Your task to perform on an android device: Add duracell triple a to the cart on costco.com Image 0: 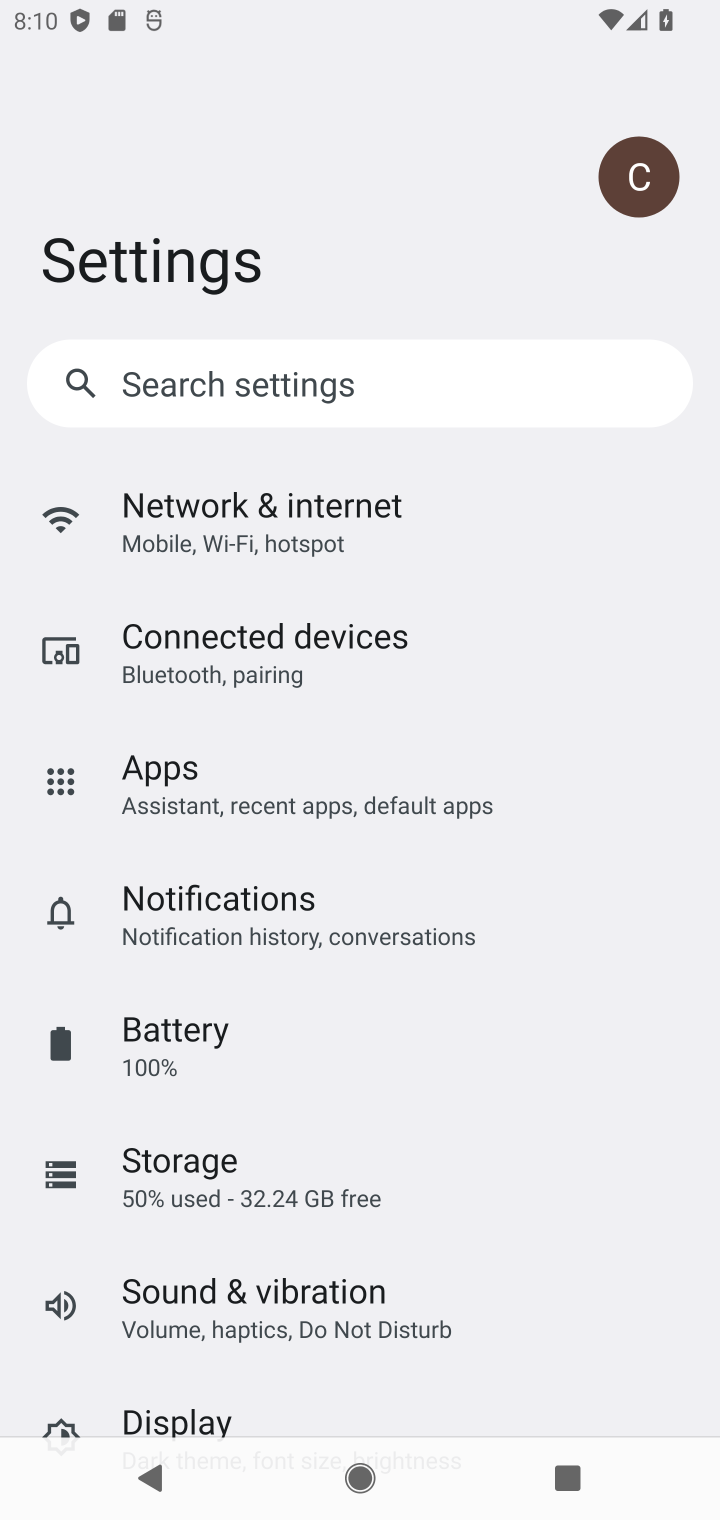
Step 0: press home button
Your task to perform on an android device: Add duracell triple a to the cart on costco.com Image 1: 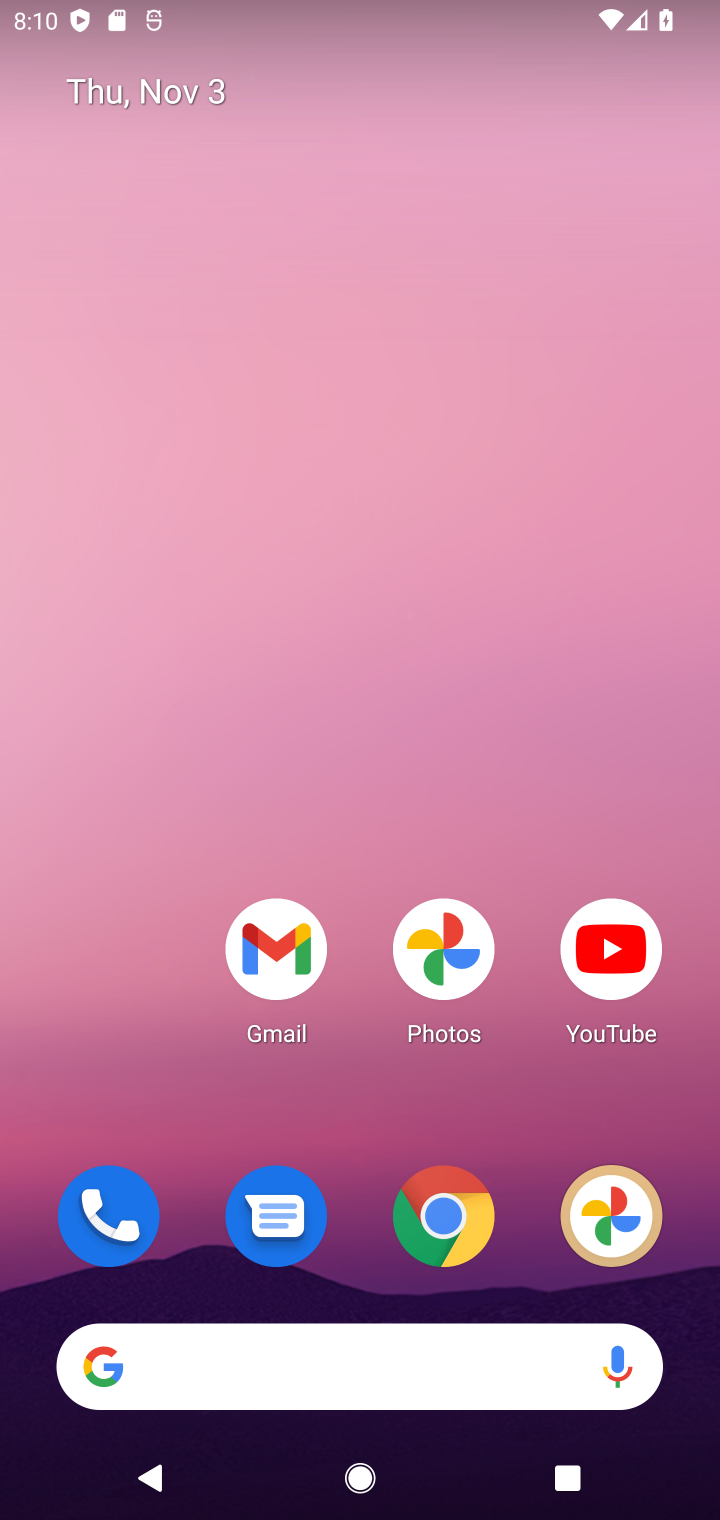
Step 1: click (447, 1251)
Your task to perform on an android device: Add duracell triple a to the cart on costco.com Image 2: 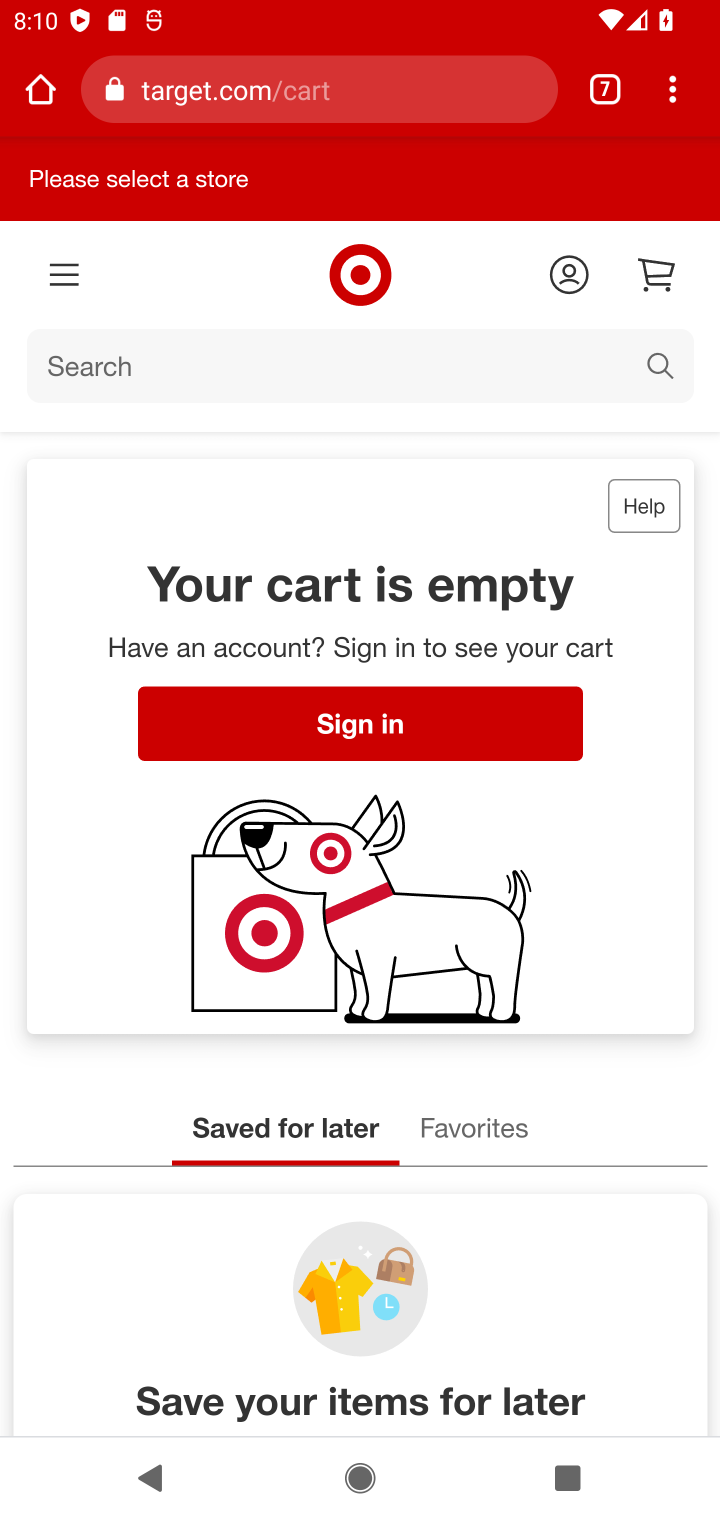
Step 2: click (599, 115)
Your task to perform on an android device: Add duracell triple a to the cart on costco.com Image 3: 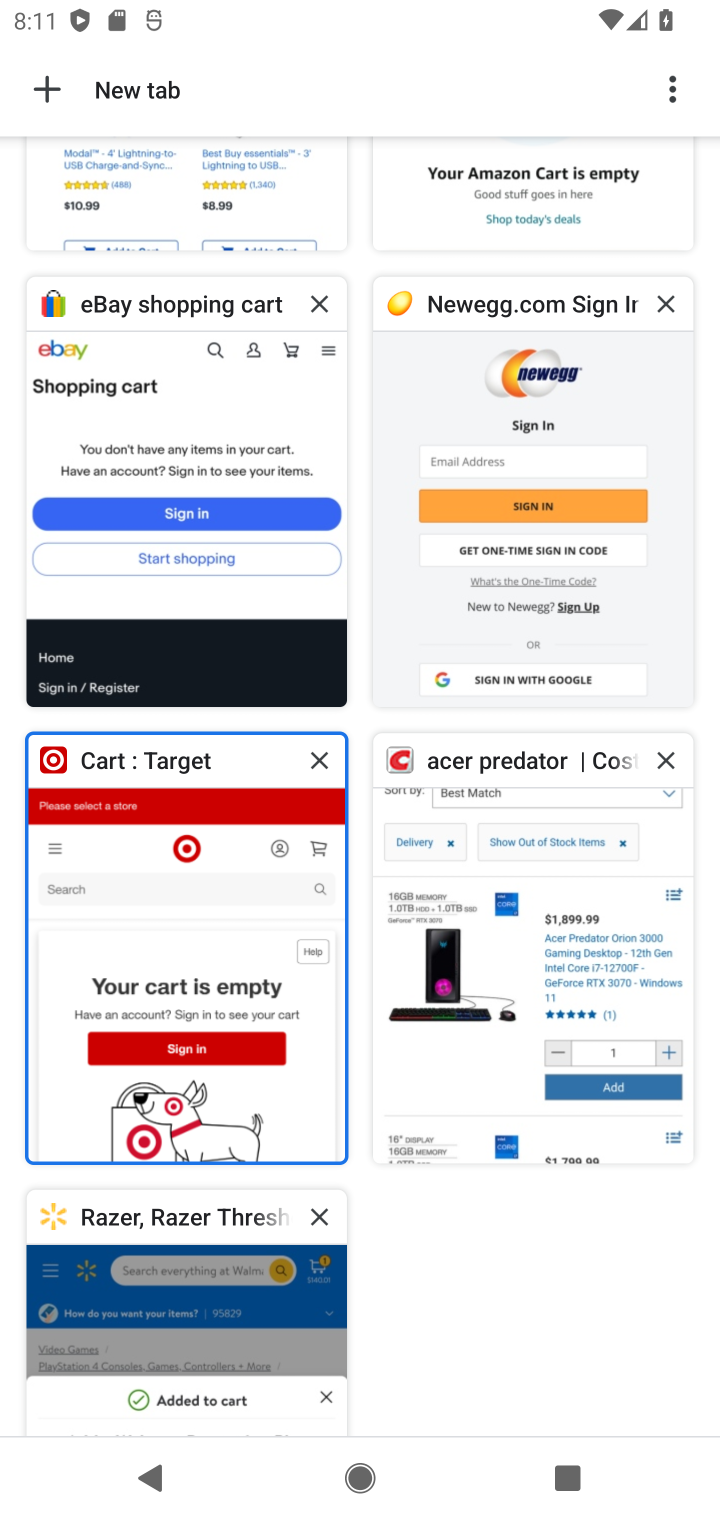
Step 3: drag from (347, 525) to (402, 1106)
Your task to perform on an android device: Add duracell triple a to the cart on costco.com Image 4: 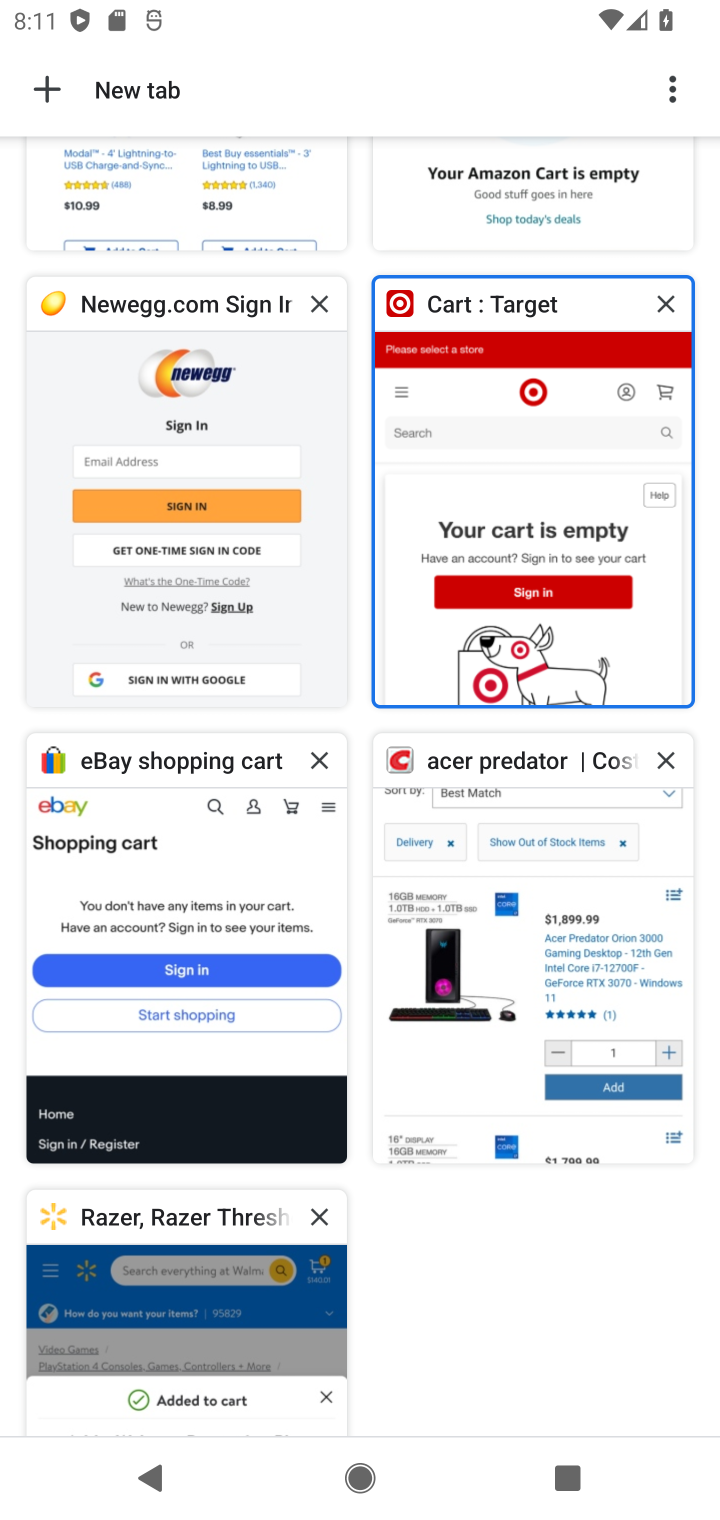
Step 4: drag from (567, 971) to (566, 1419)
Your task to perform on an android device: Add duracell triple a to the cart on costco.com Image 5: 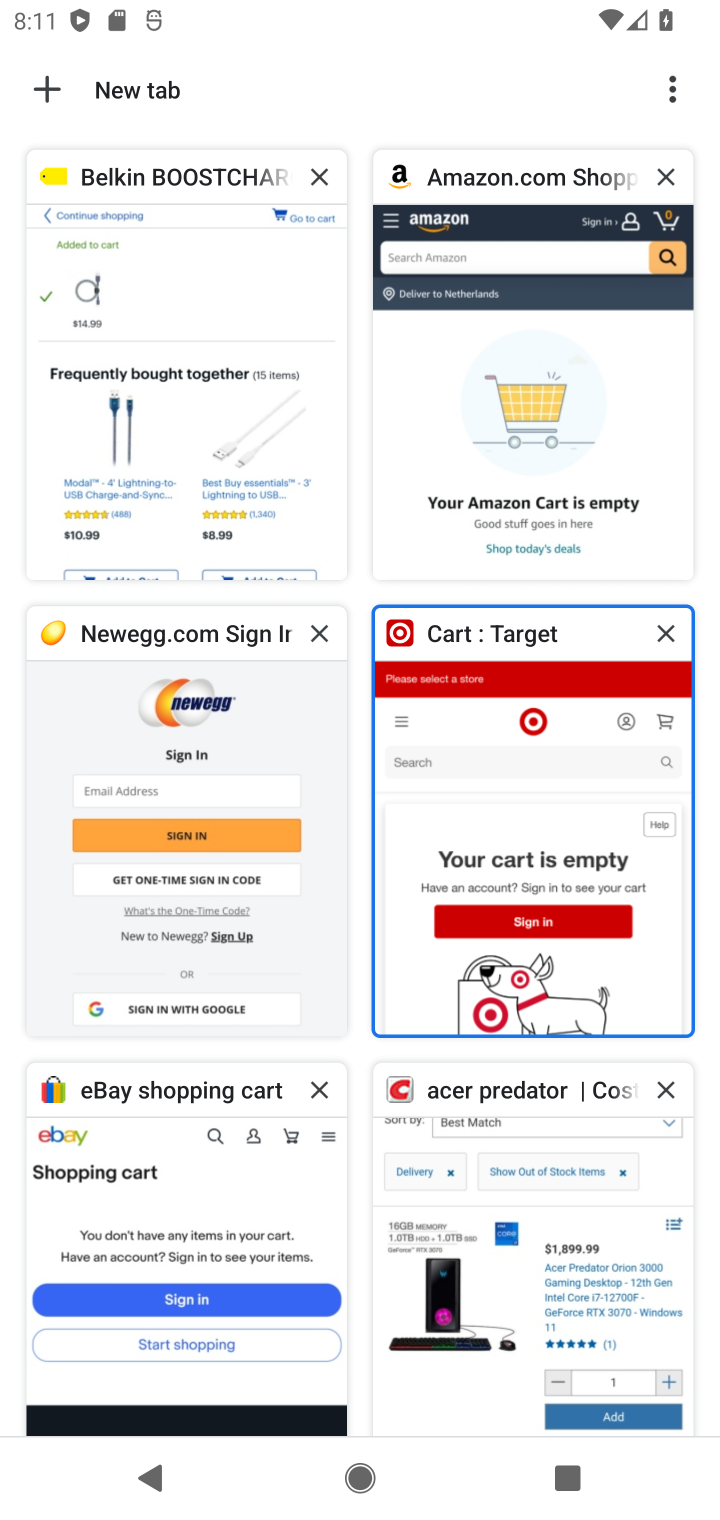
Step 5: click (518, 1189)
Your task to perform on an android device: Add duracell triple a to the cart on costco.com Image 6: 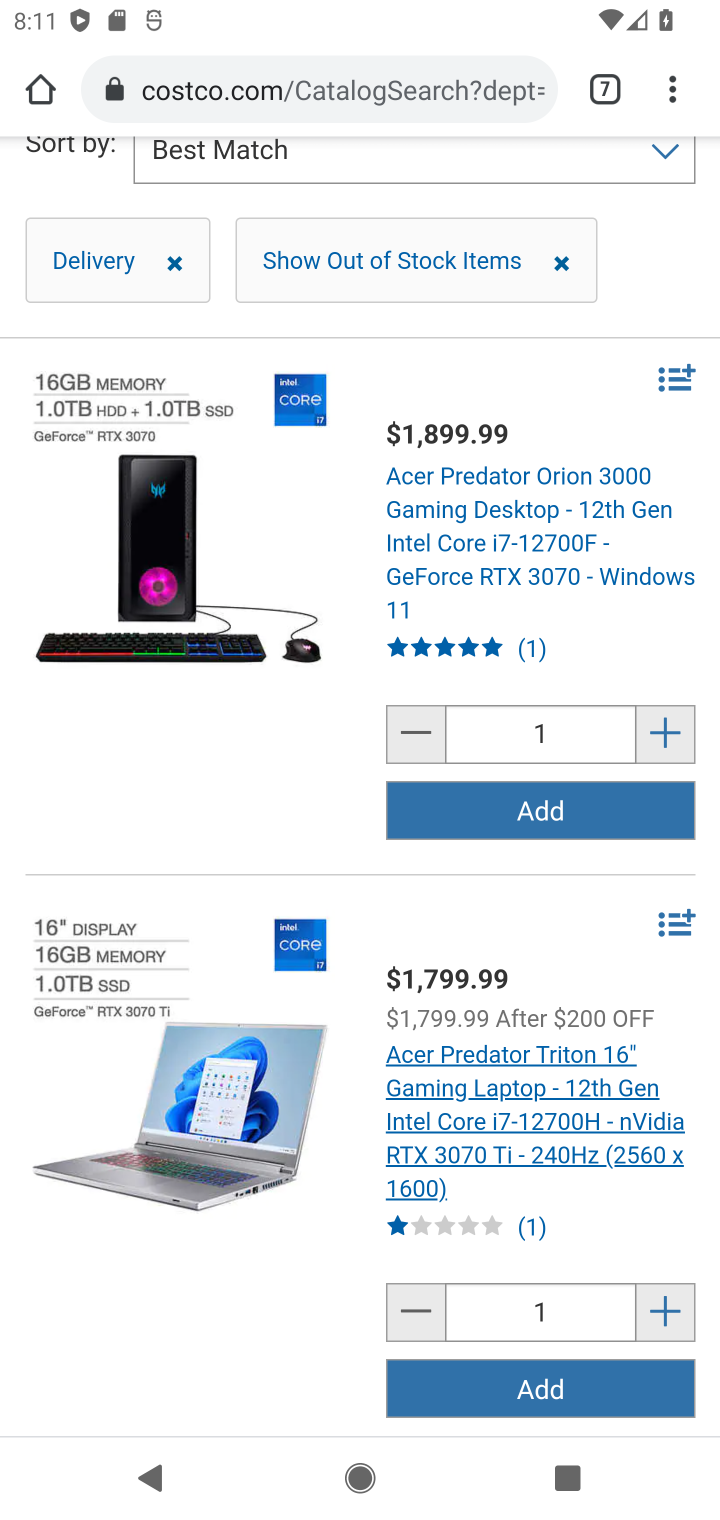
Step 6: drag from (638, 214) to (596, 1075)
Your task to perform on an android device: Add duracell triple a to the cart on costco.com Image 7: 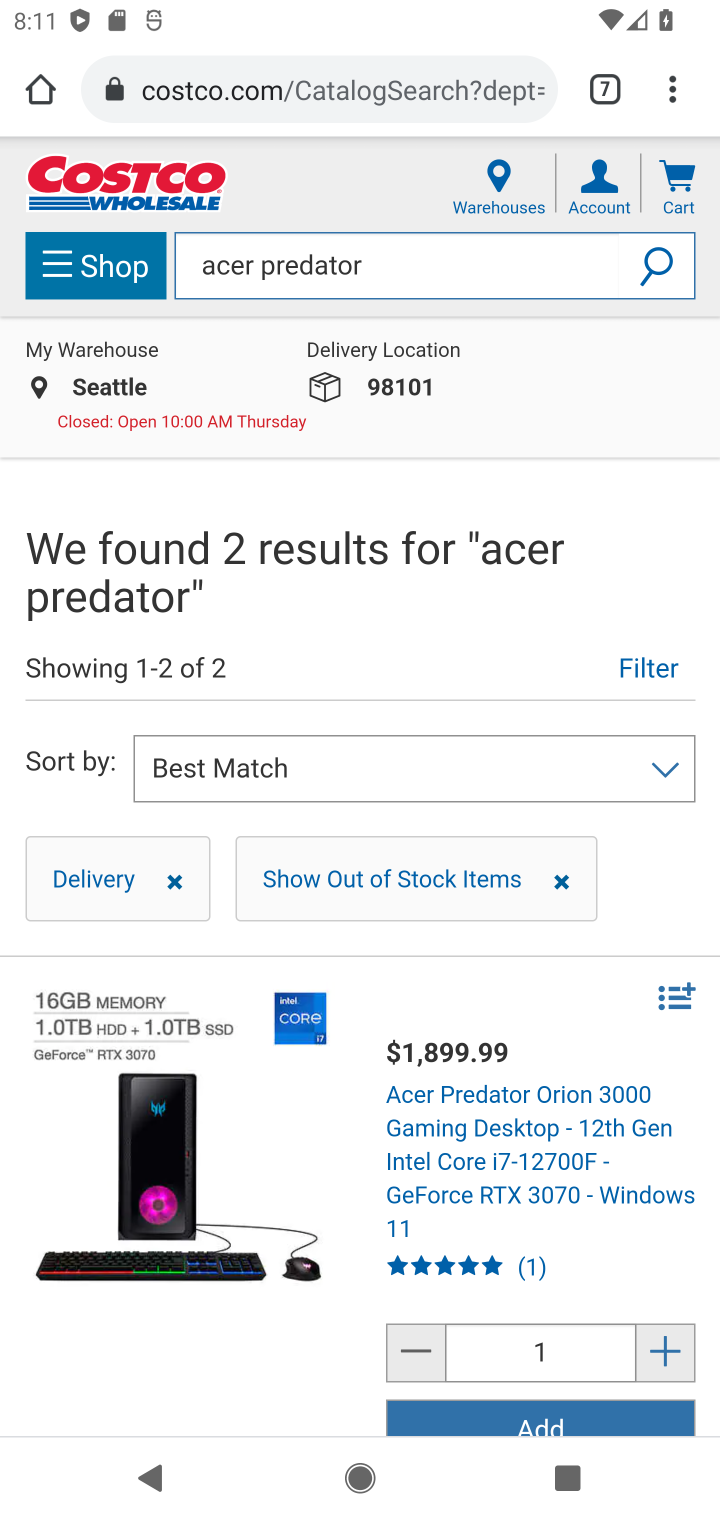
Step 7: click (422, 270)
Your task to perform on an android device: Add duracell triple a to the cart on costco.com Image 8: 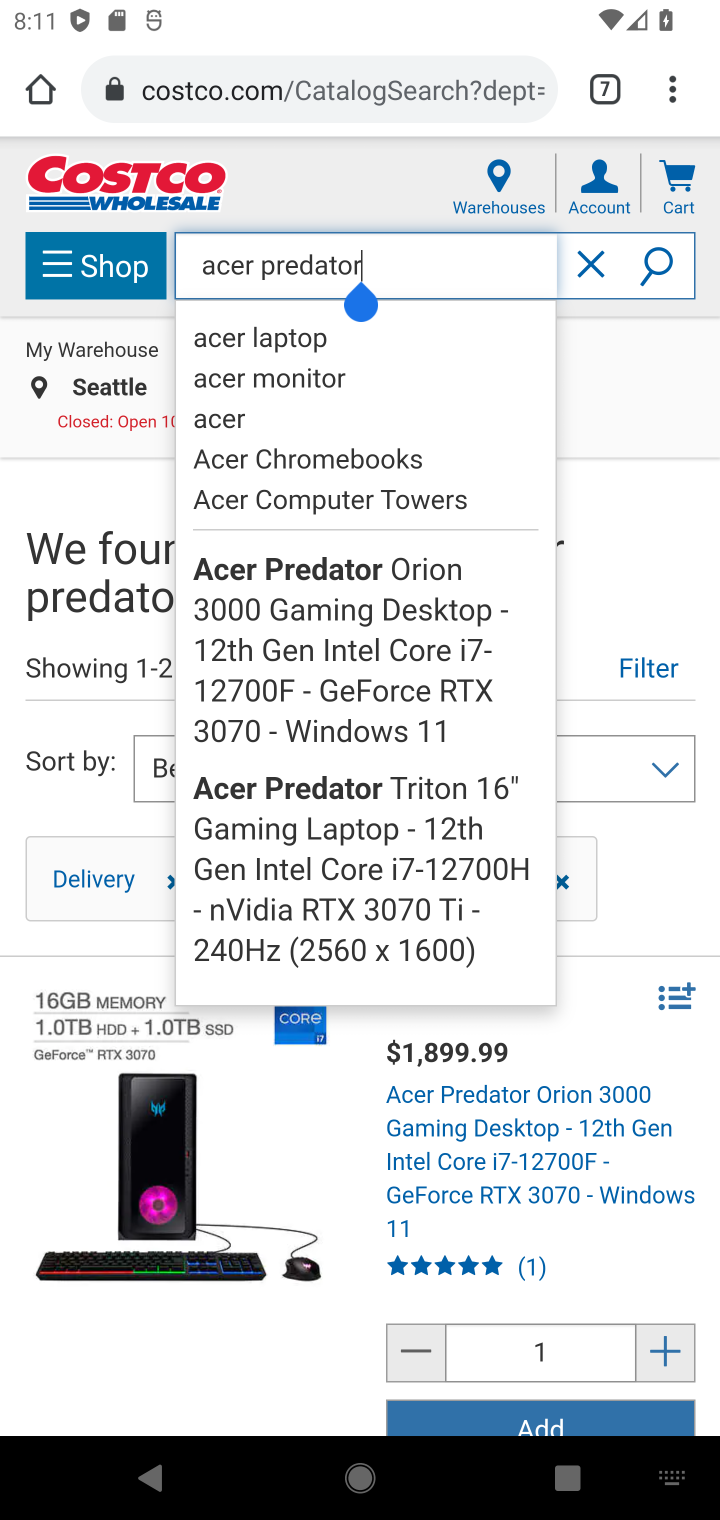
Step 8: click (582, 267)
Your task to perform on an android device: Add duracell triple a to the cart on costco.com Image 9: 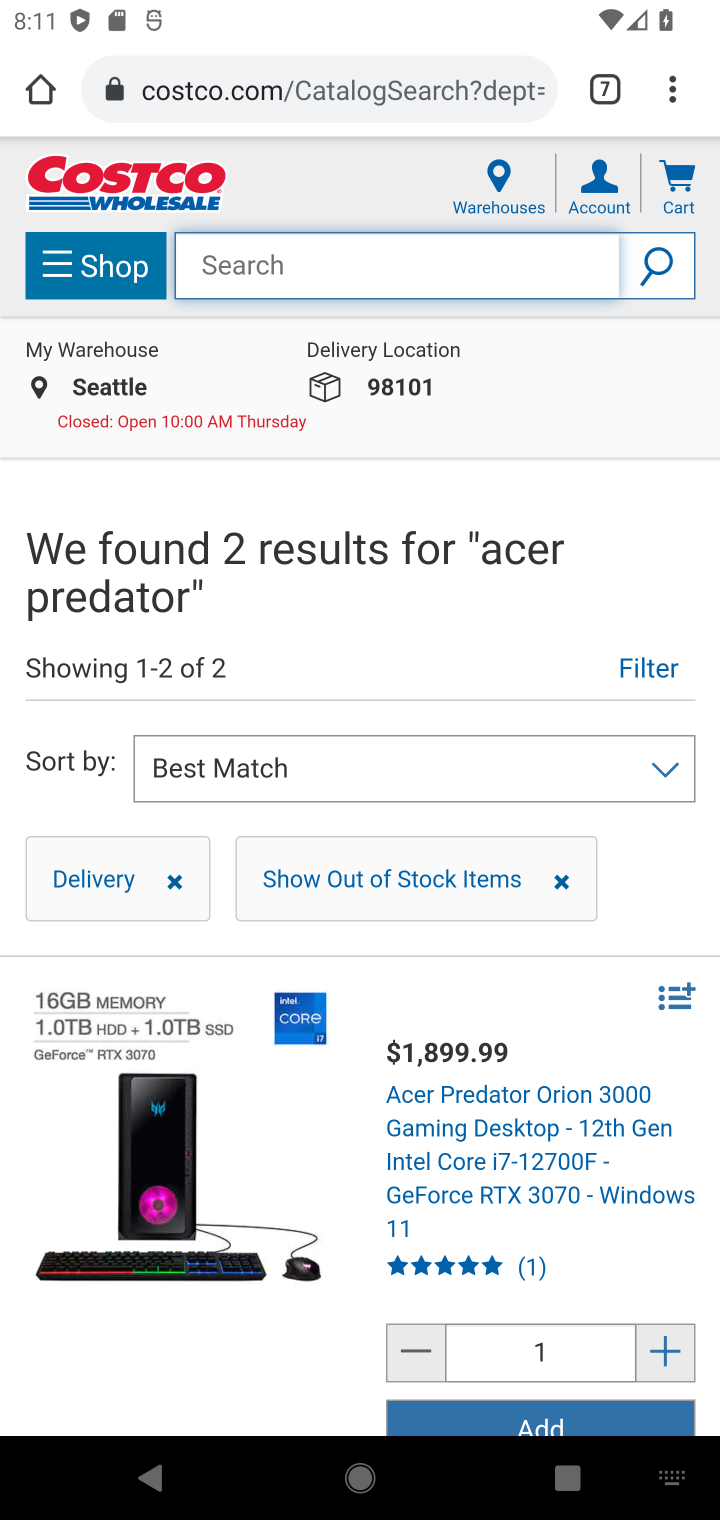
Step 9: click (417, 285)
Your task to perform on an android device: Add duracell triple a to the cart on costco.com Image 10: 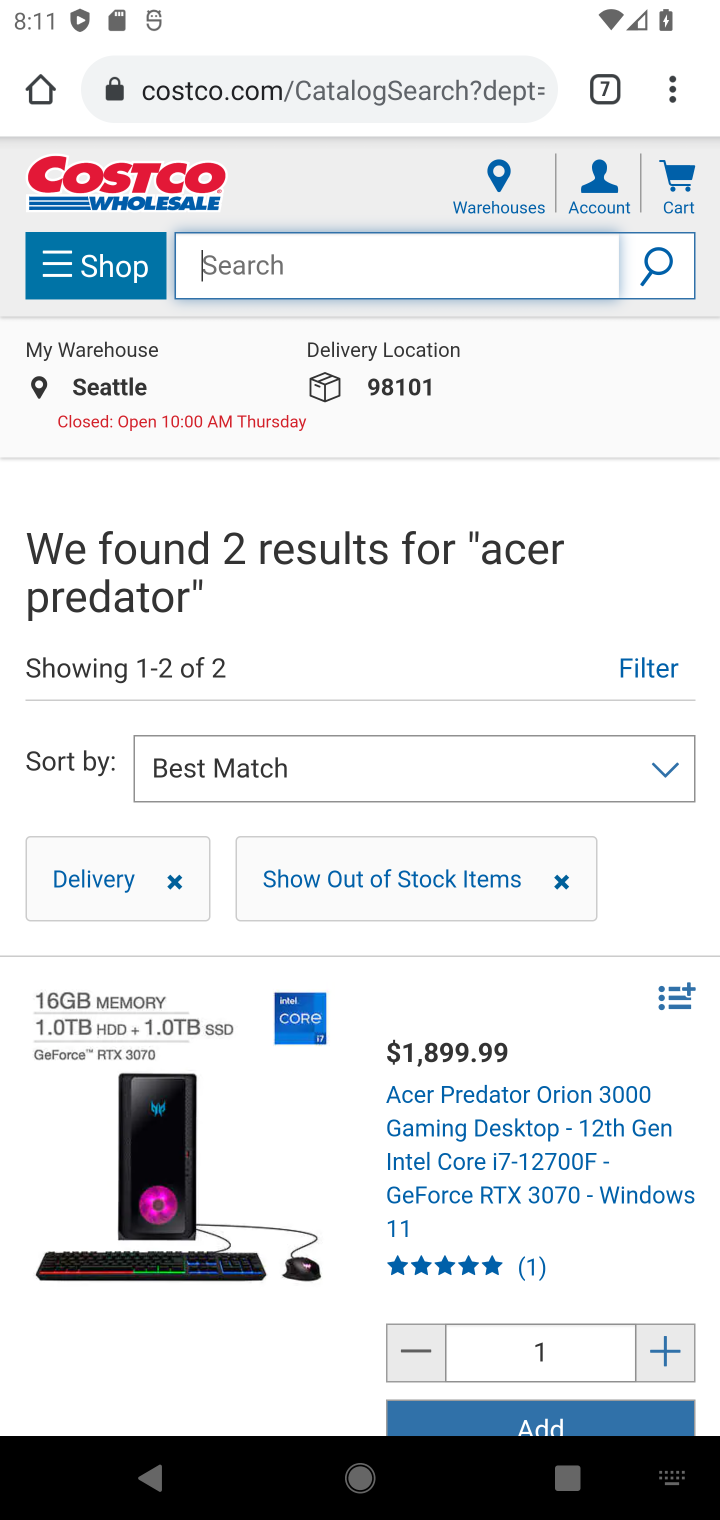
Step 10: click (417, 285)
Your task to perform on an android device: Add duracell triple a to the cart on costco.com Image 11: 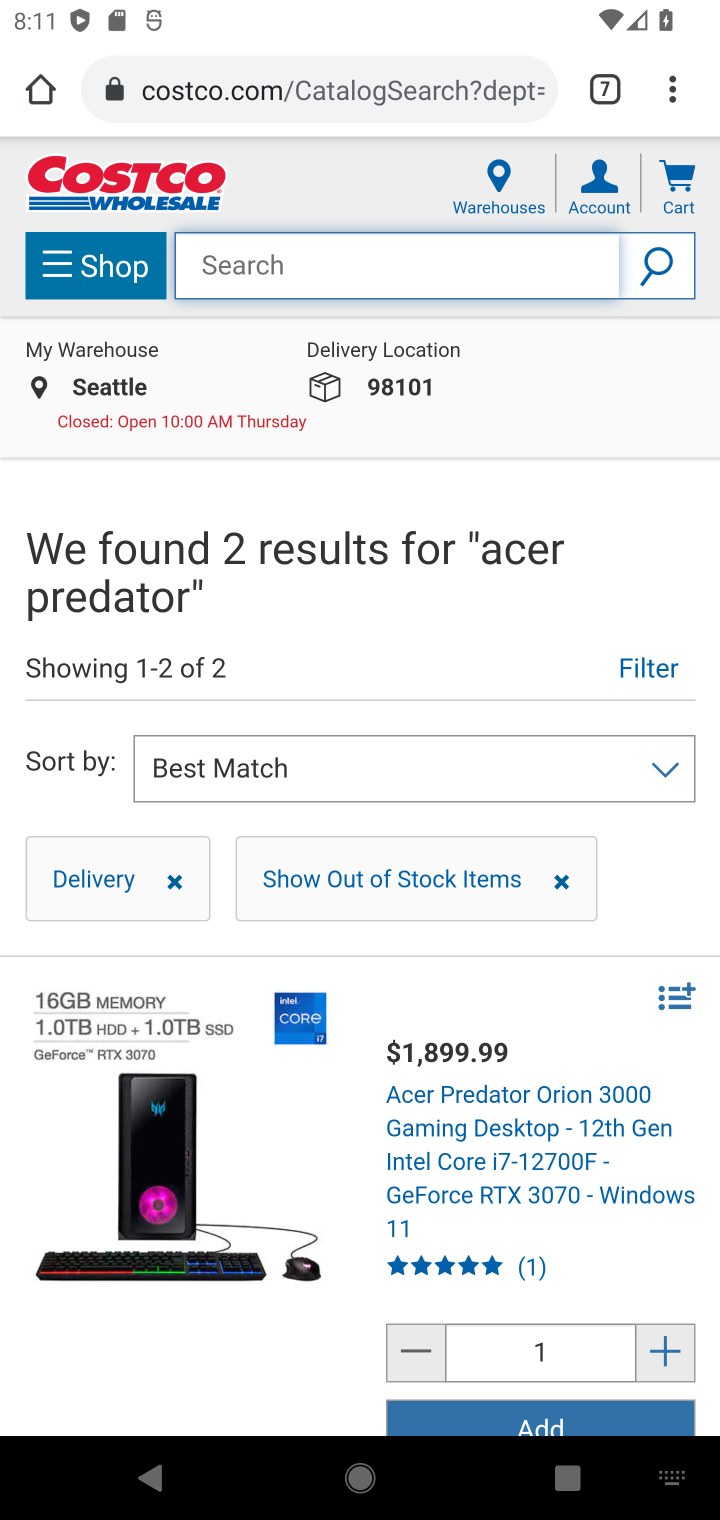
Step 11: type "duracell triple "
Your task to perform on an android device: Add duracell triple a to the cart on costco.com Image 12: 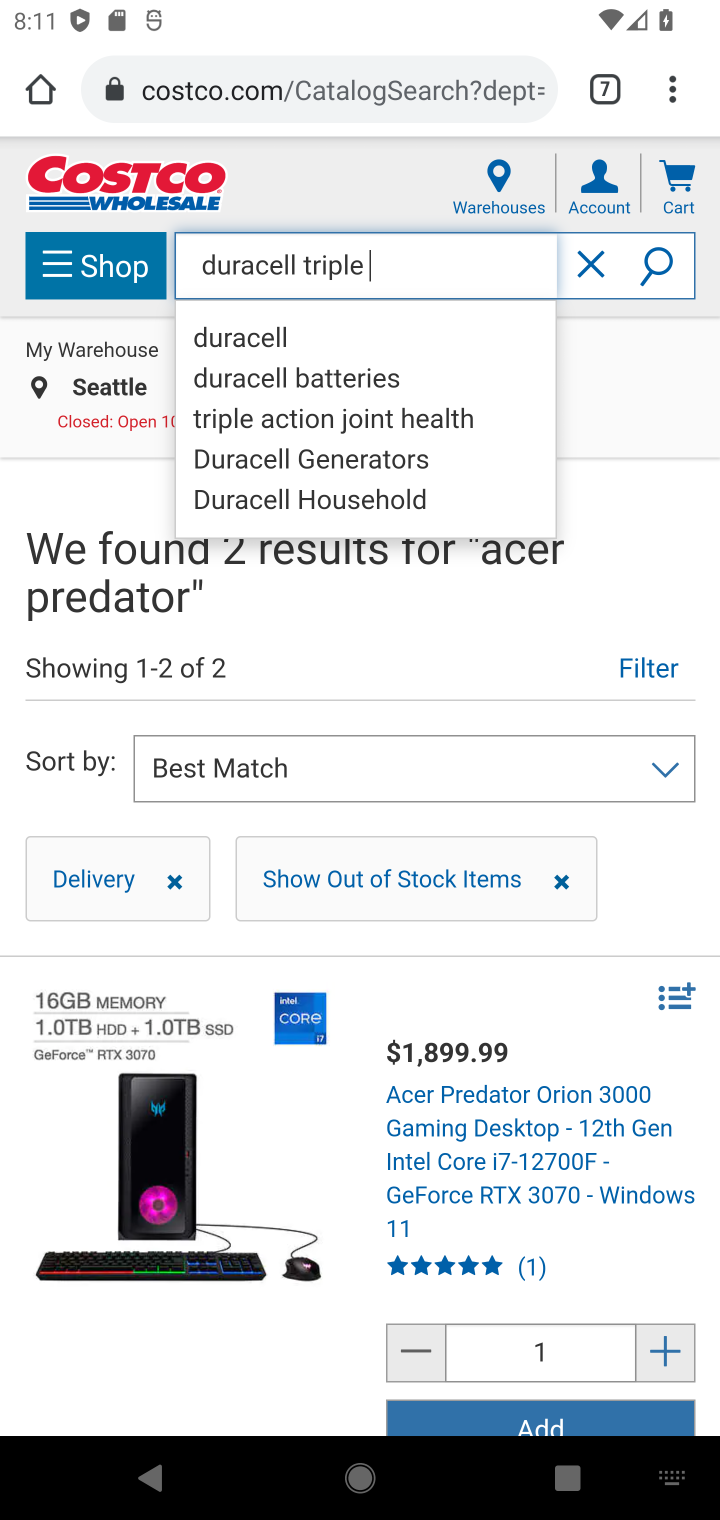
Step 12: press enter
Your task to perform on an android device: Add duracell triple a to the cart on costco.com Image 13: 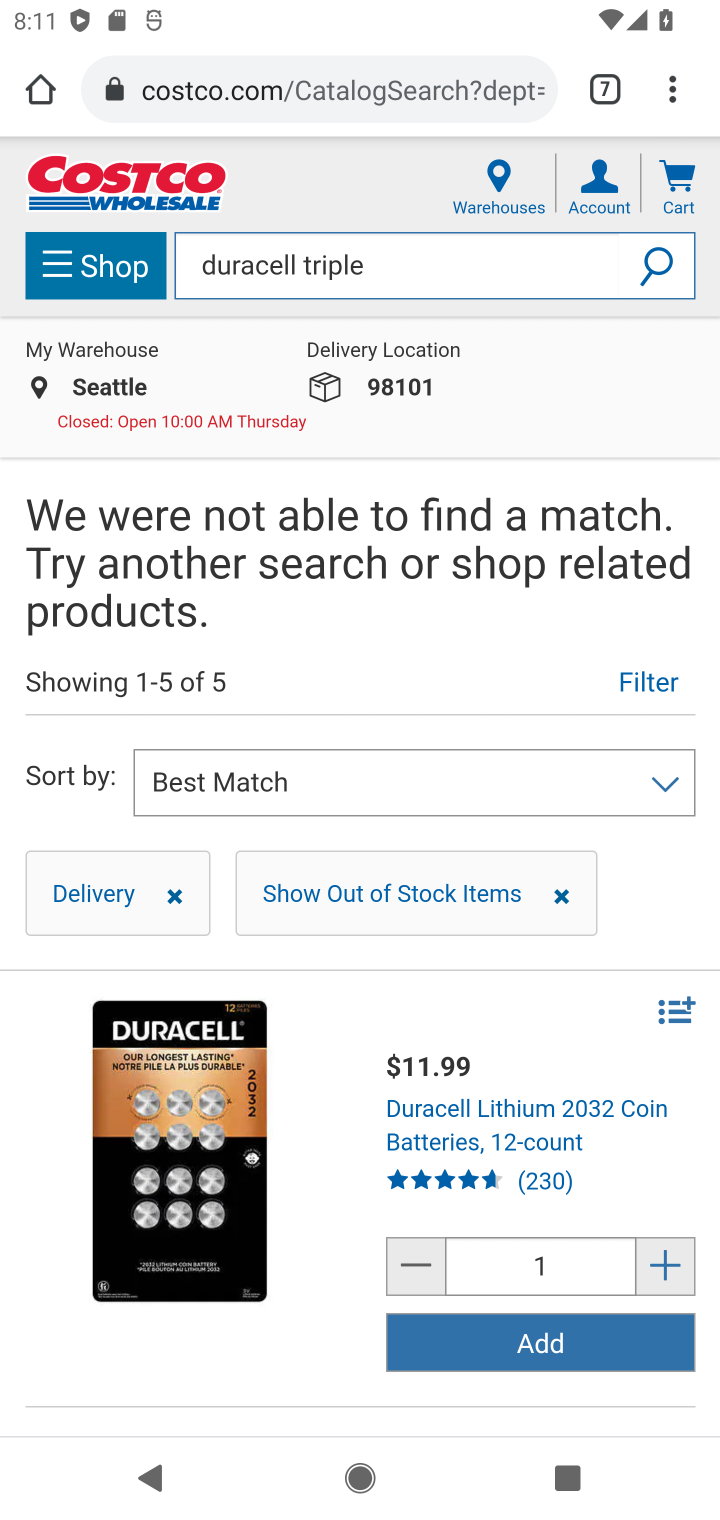
Step 13: task complete